Your task to perform on an android device: toggle notifications settings in the gmail app Image 0: 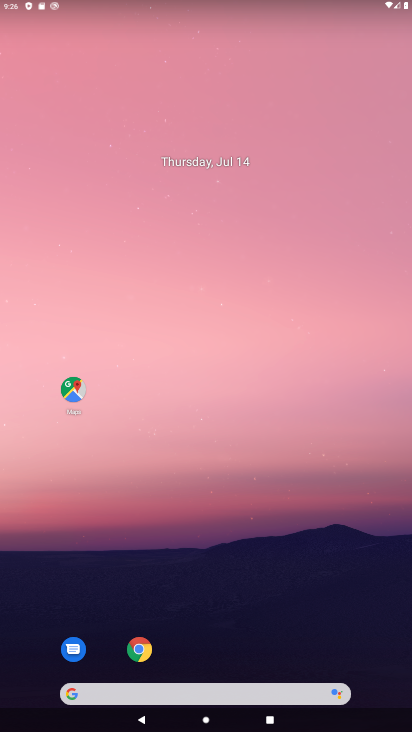
Step 0: drag from (218, 585) to (233, 160)
Your task to perform on an android device: toggle notifications settings in the gmail app Image 1: 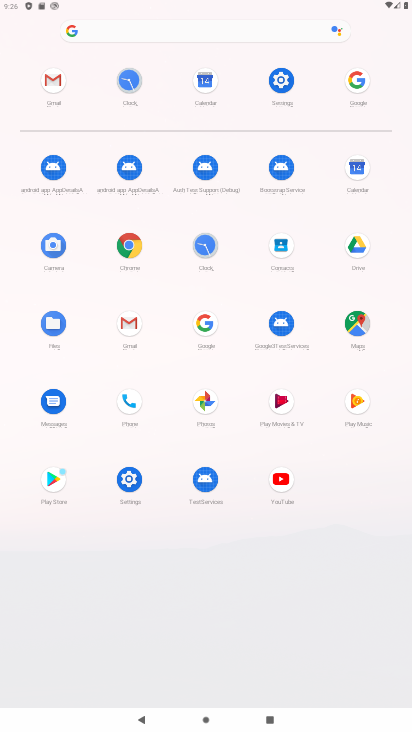
Step 1: click (135, 342)
Your task to perform on an android device: toggle notifications settings in the gmail app Image 2: 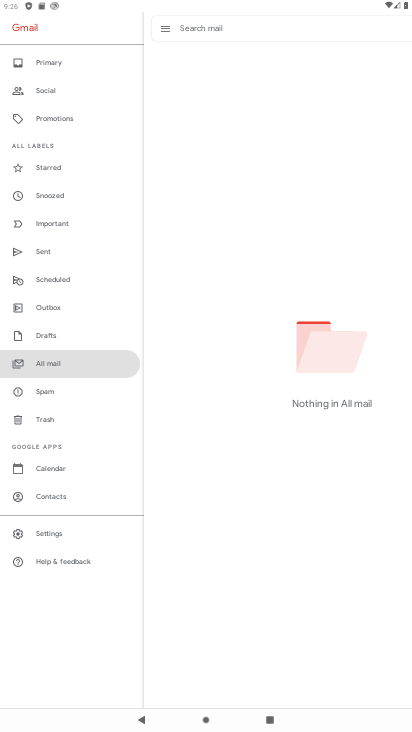
Step 2: click (43, 538)
Your task to perform on an android device: toggle notifications settings in the gmail app Image 3: 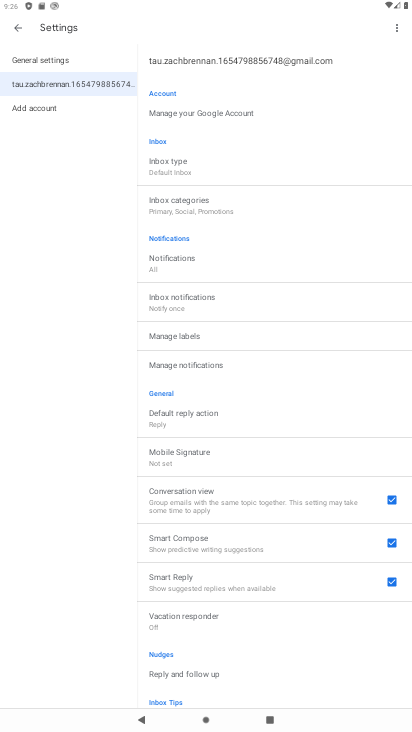
Step 3: click (226, 363)
Your task to perform on an android device: toggle notifications settings in the gmail app Image 4: 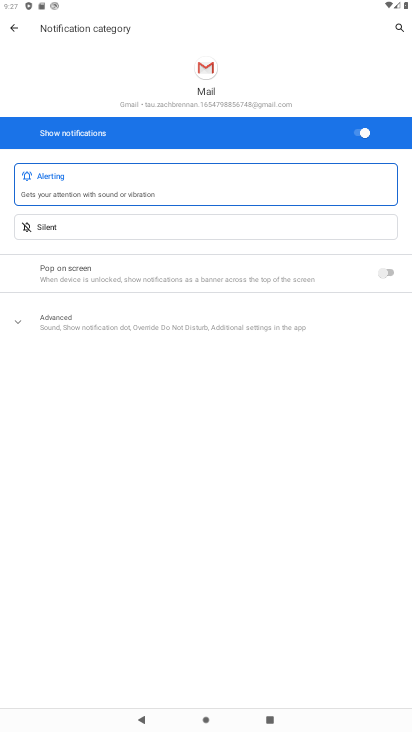
Step 4: click (360, 131)
Your task to perform on an android device: toggle notifications settings in the gmail app Image 5: 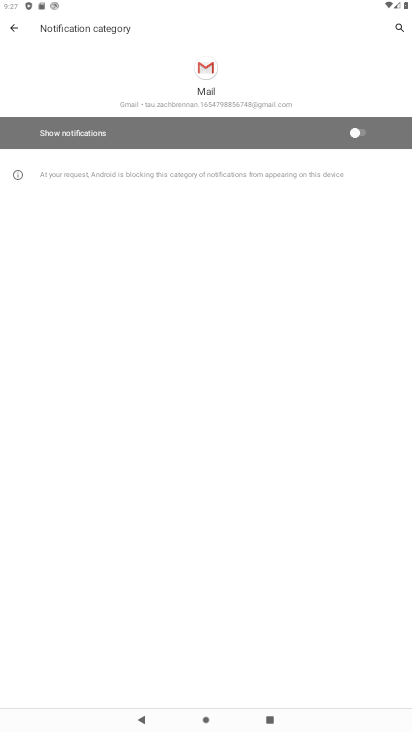
Step 5: task complete